Your task to perform on an android device: Play the new Bruno Mars video on YouTube Image 0: 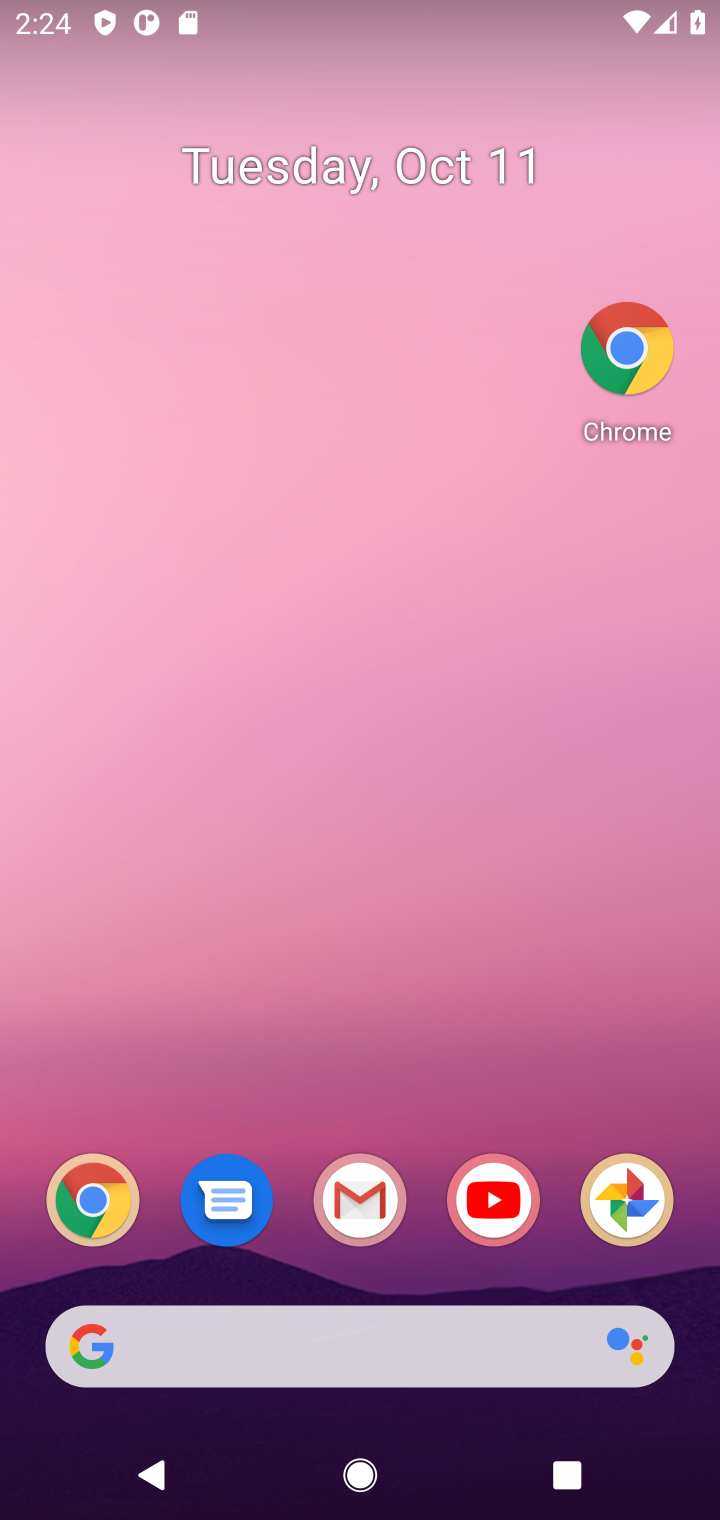
Step 0: drag from (439, 1102) to (403, 241)
Your task to perform on an android device: Play the new Bruno Mars video on YouTube Image 1: 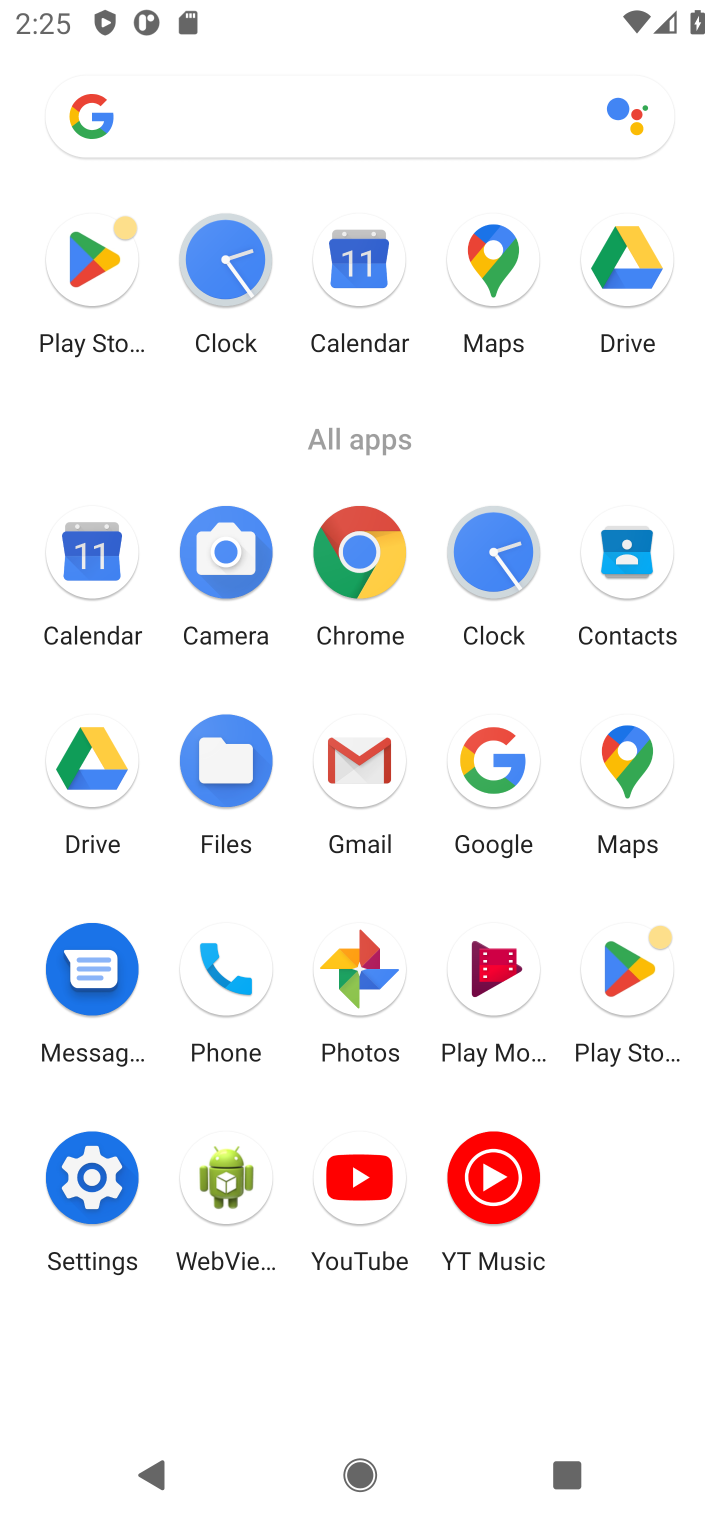
Step 1: click (358, 1213)
Your task to perform on an android device: Play the new Bruno Mars video on YouTube Image 2: 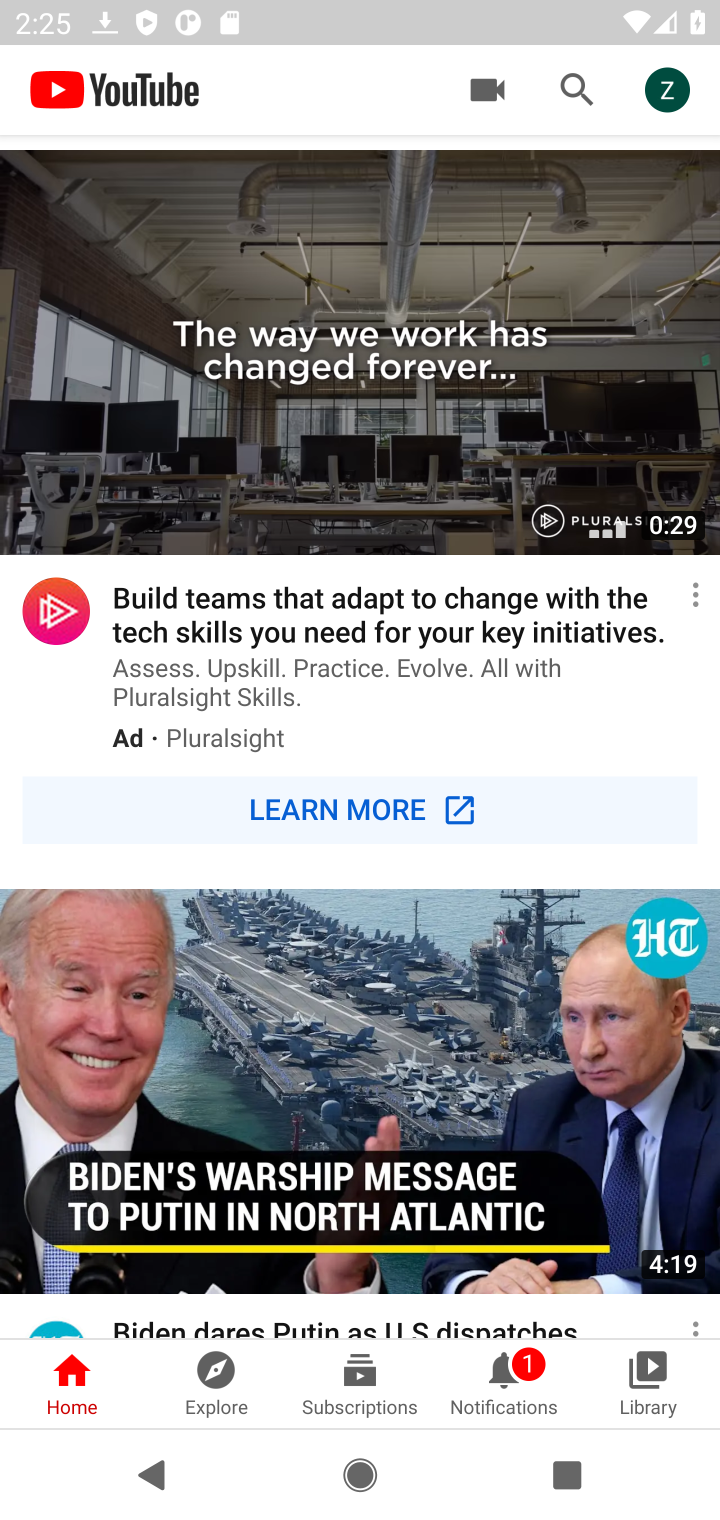
Step 2: click (554, 70)
Your task to perform on an android device: Play the new Bruno Mars video on YouTube Image 3: 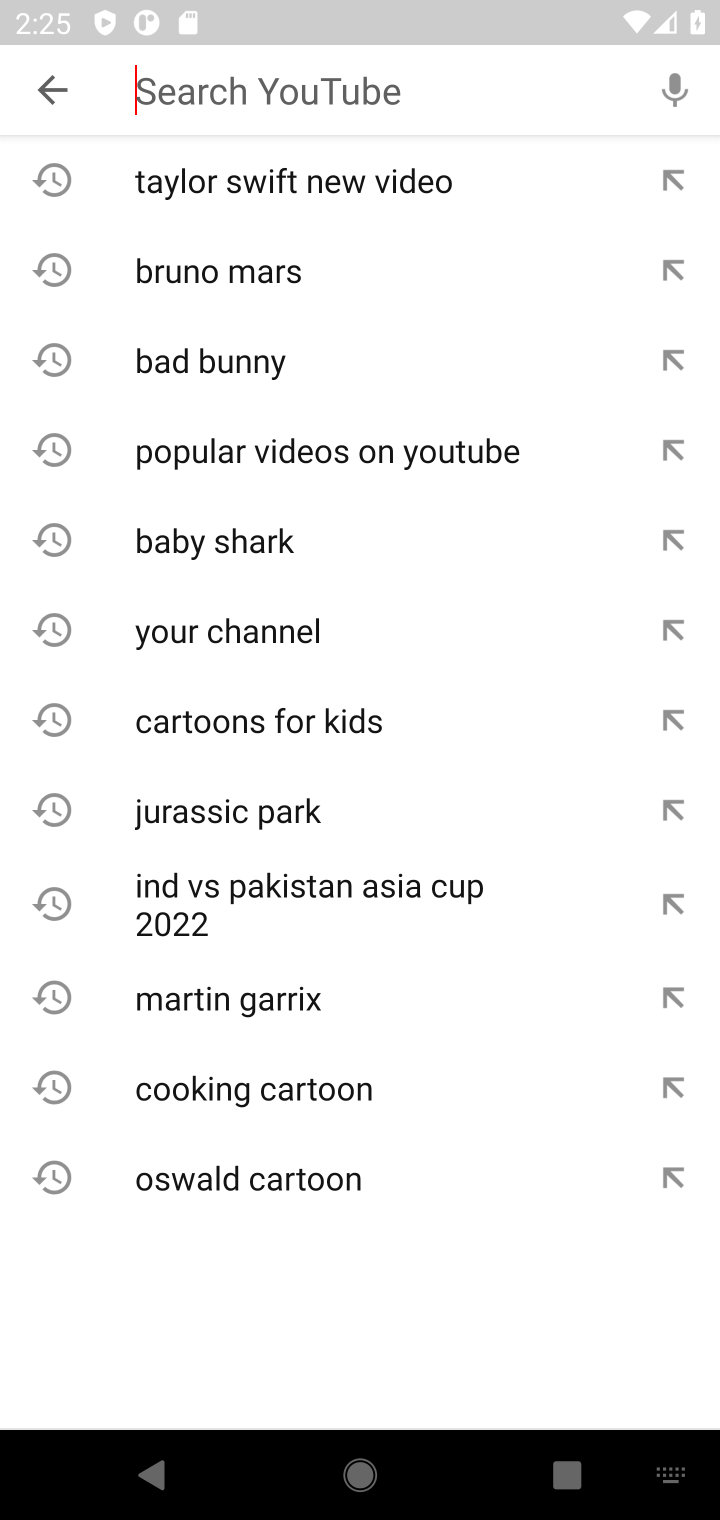
Step 3: type " Bruno Mars video"
Your task to perform on an android device: Play the new Bruno Mars video on YouTube Image 4: 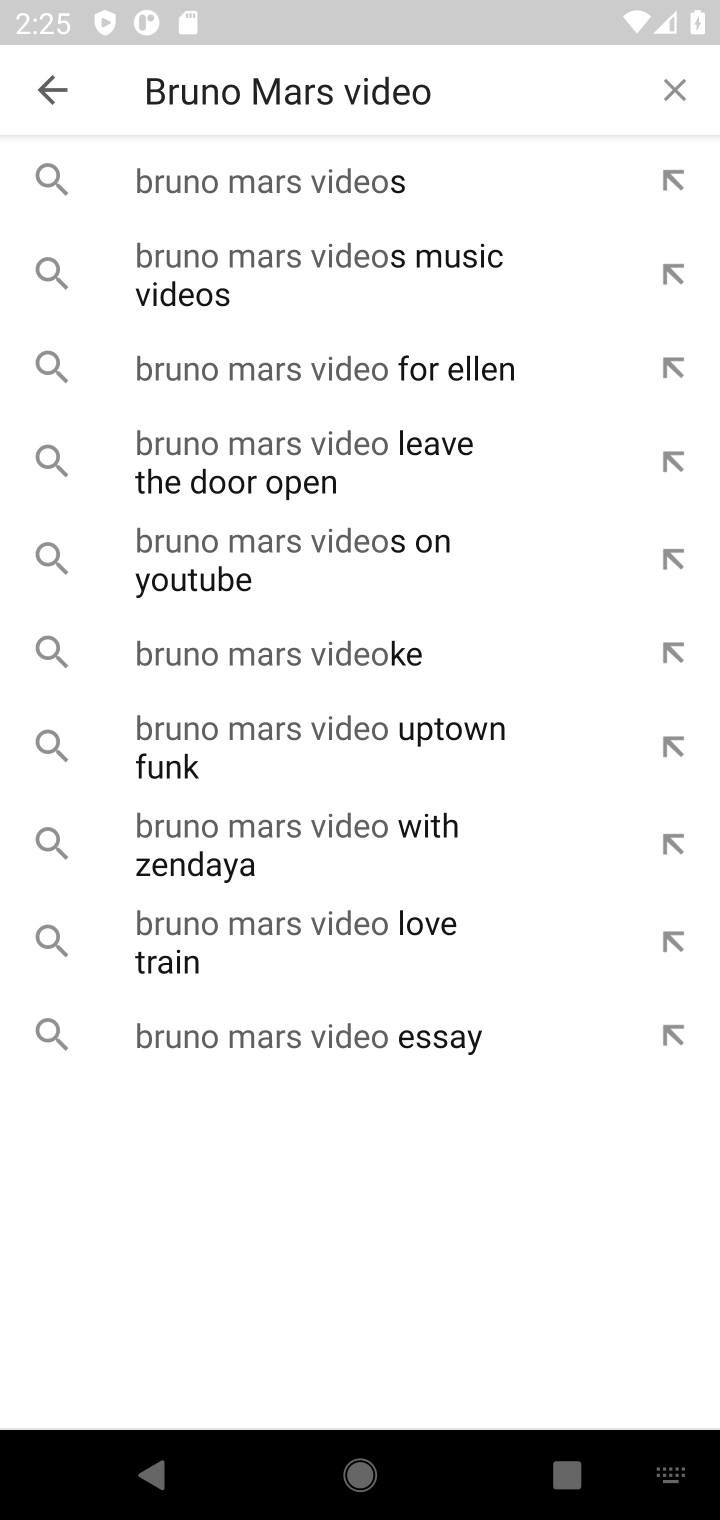
Step 4: type ""
Your task to perform on an android device: Play the new Bruno Mars video on YouTube Image 5: 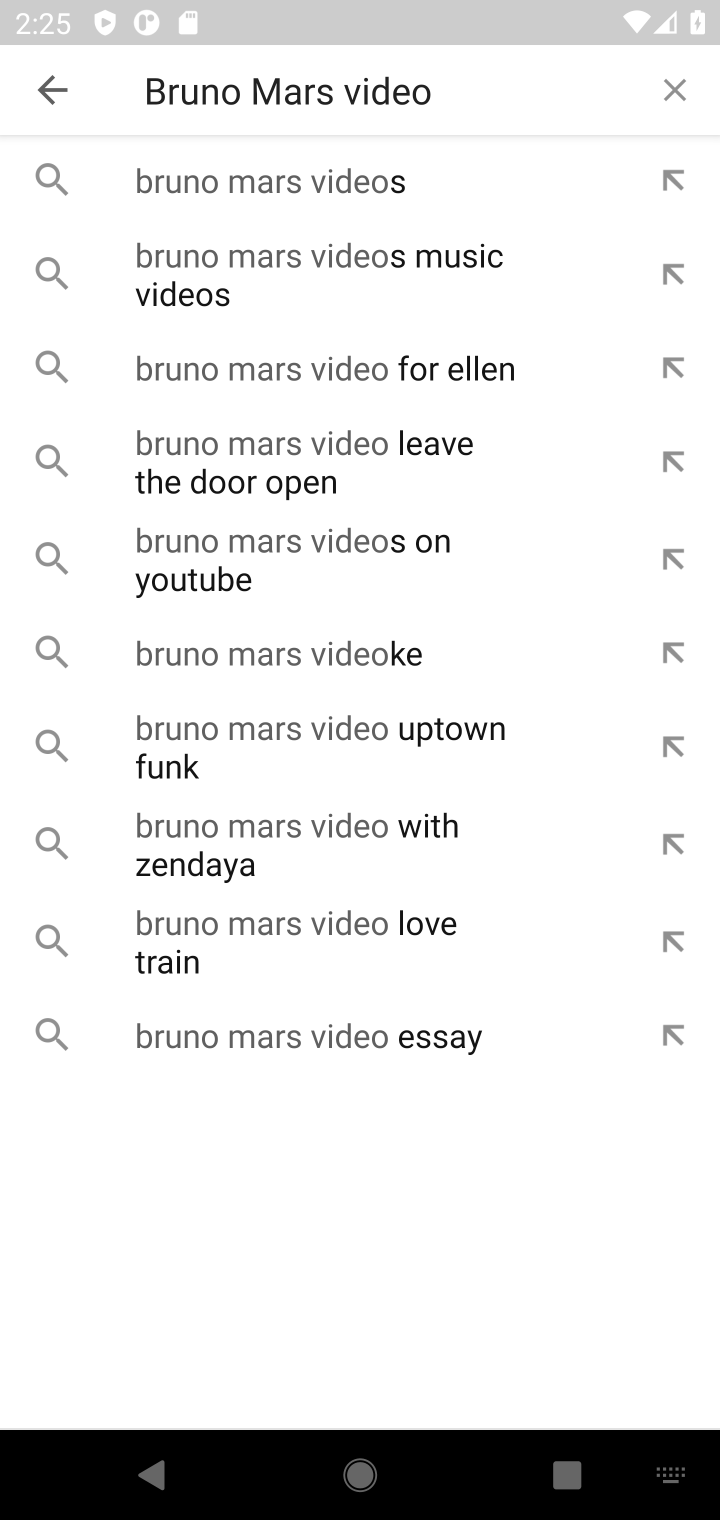
Step 5: click (343, 187)
Your task to perform on an android device: Play the new Bruno Mars video on YouTube Image 6: 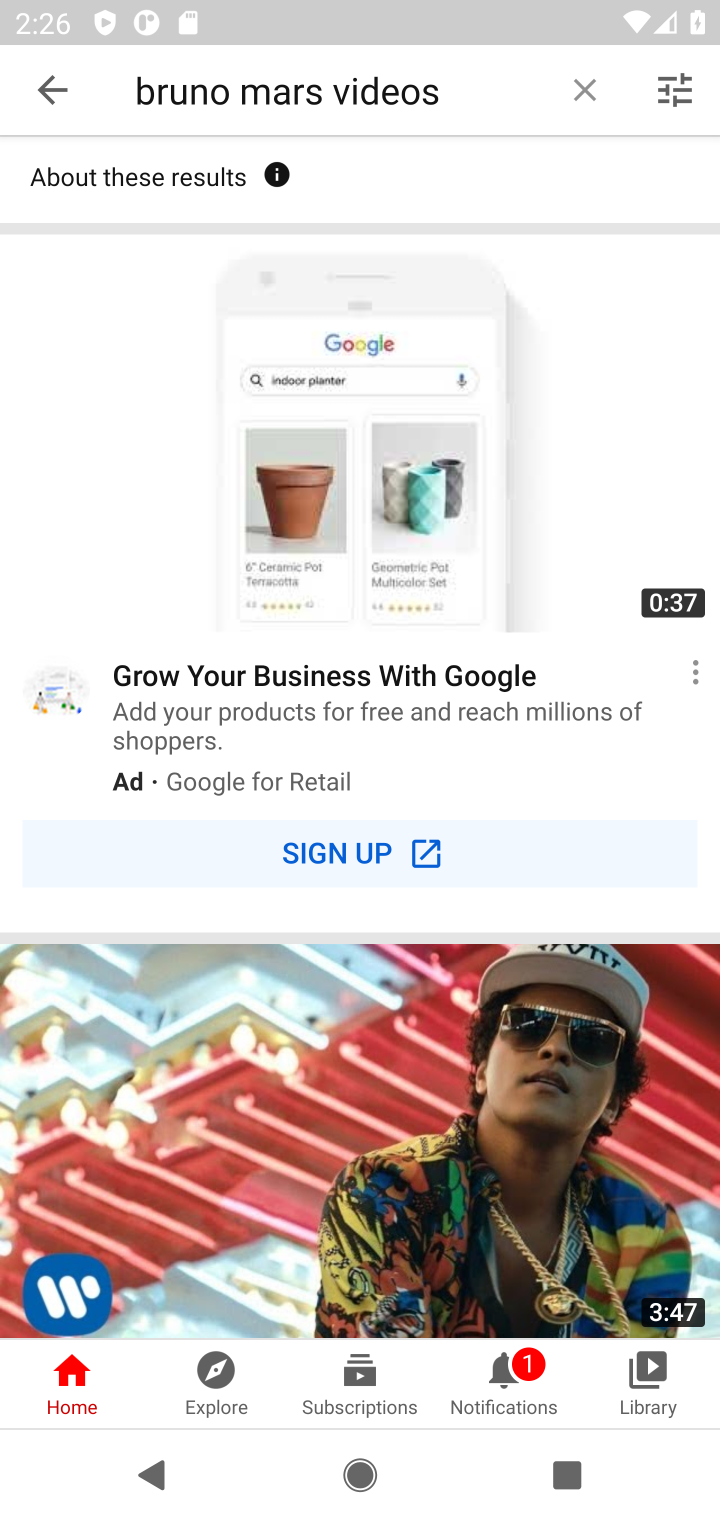
Step 6: drag from (403, 1028) to (460, 345)
Your task to perform on an android device: Play the new Bruno Mars video on YouTube Image 7: 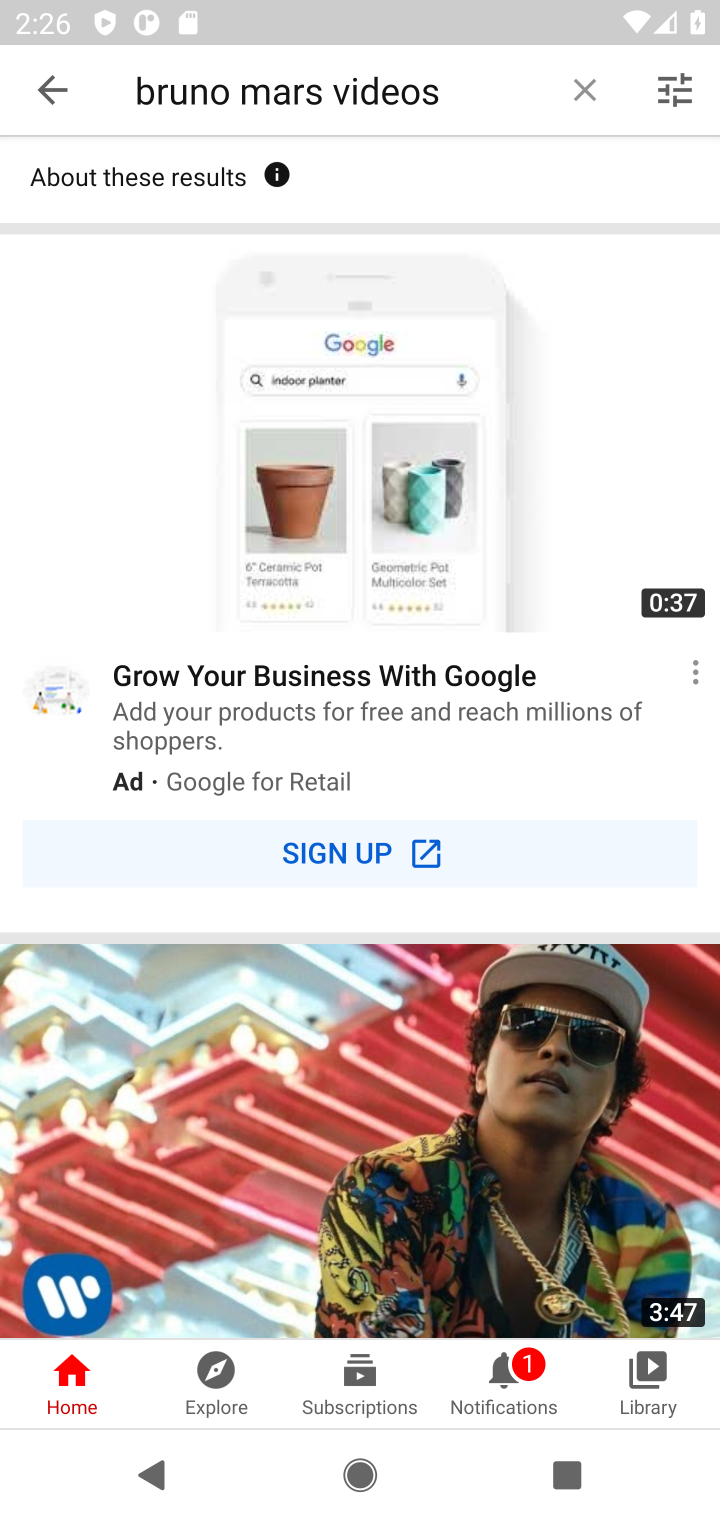
Step 7: drag from (519, 1005) to (536, 381)
Your task to perform on an android device: Play the new Bruno Mars video on YouTube Image 8: 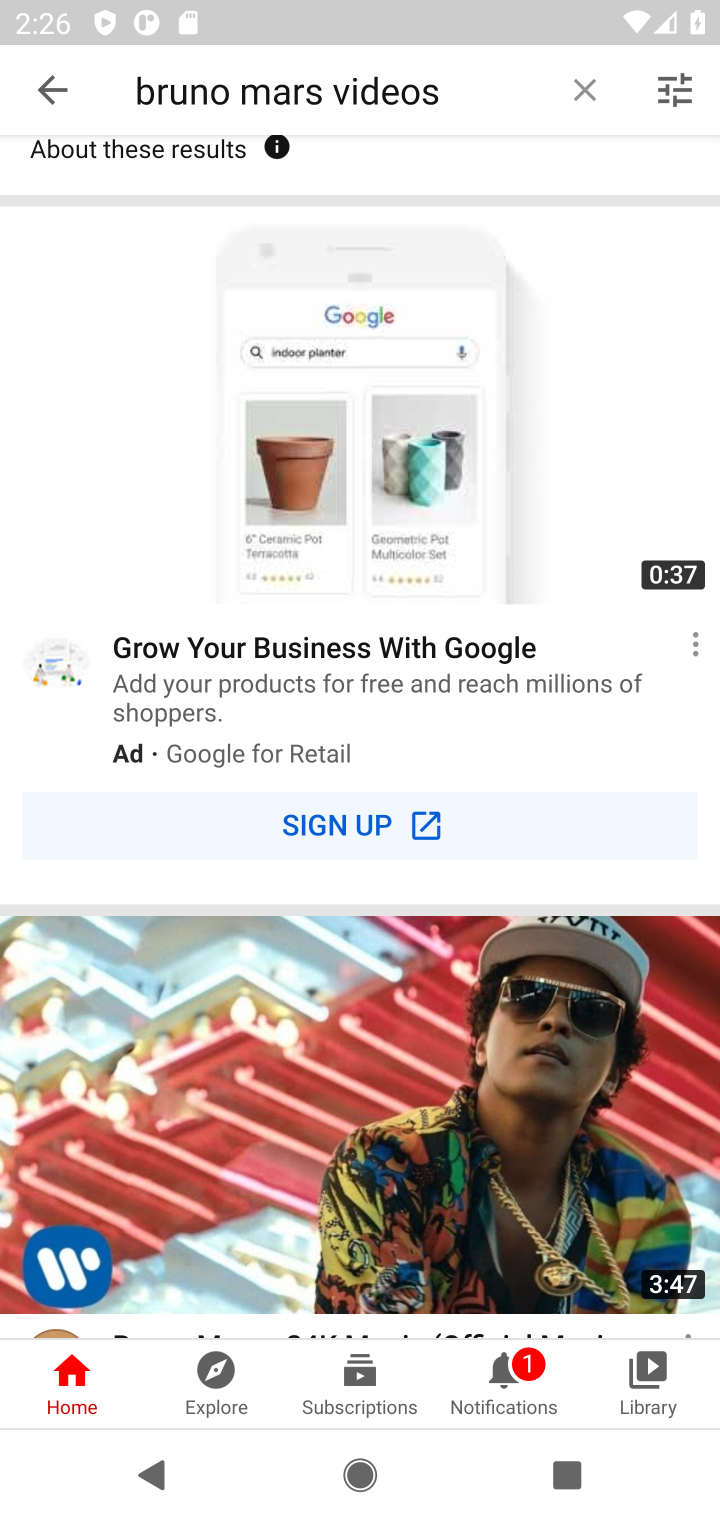
Step 8: drag from (504, 1054) to (473, 347)
Your task to perform on an android device: Play the new Bruno Mars video on YouTube Image 9: 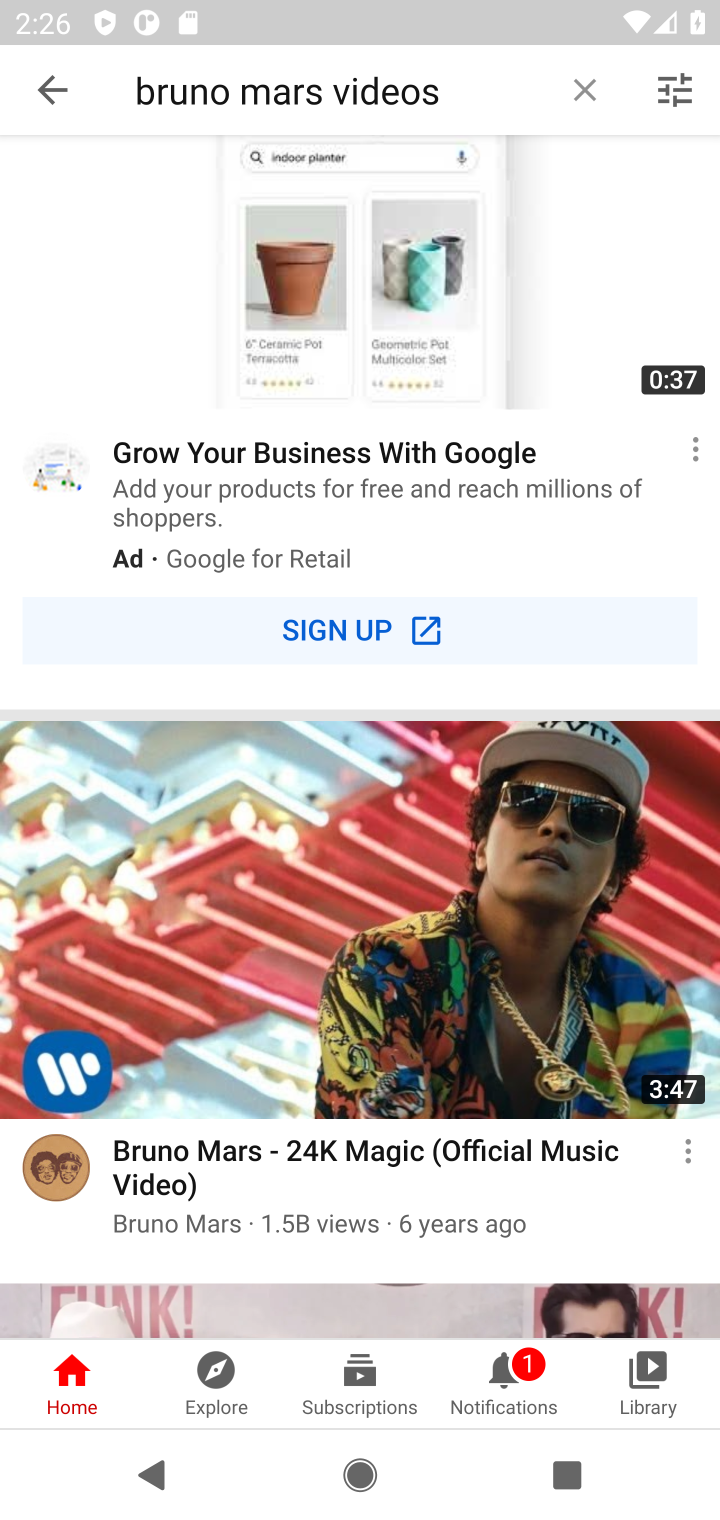
Step 9: click (207, 1168)
Your task to perform on an android device: Play the new Bruno Mars video on YouTube Image 10: 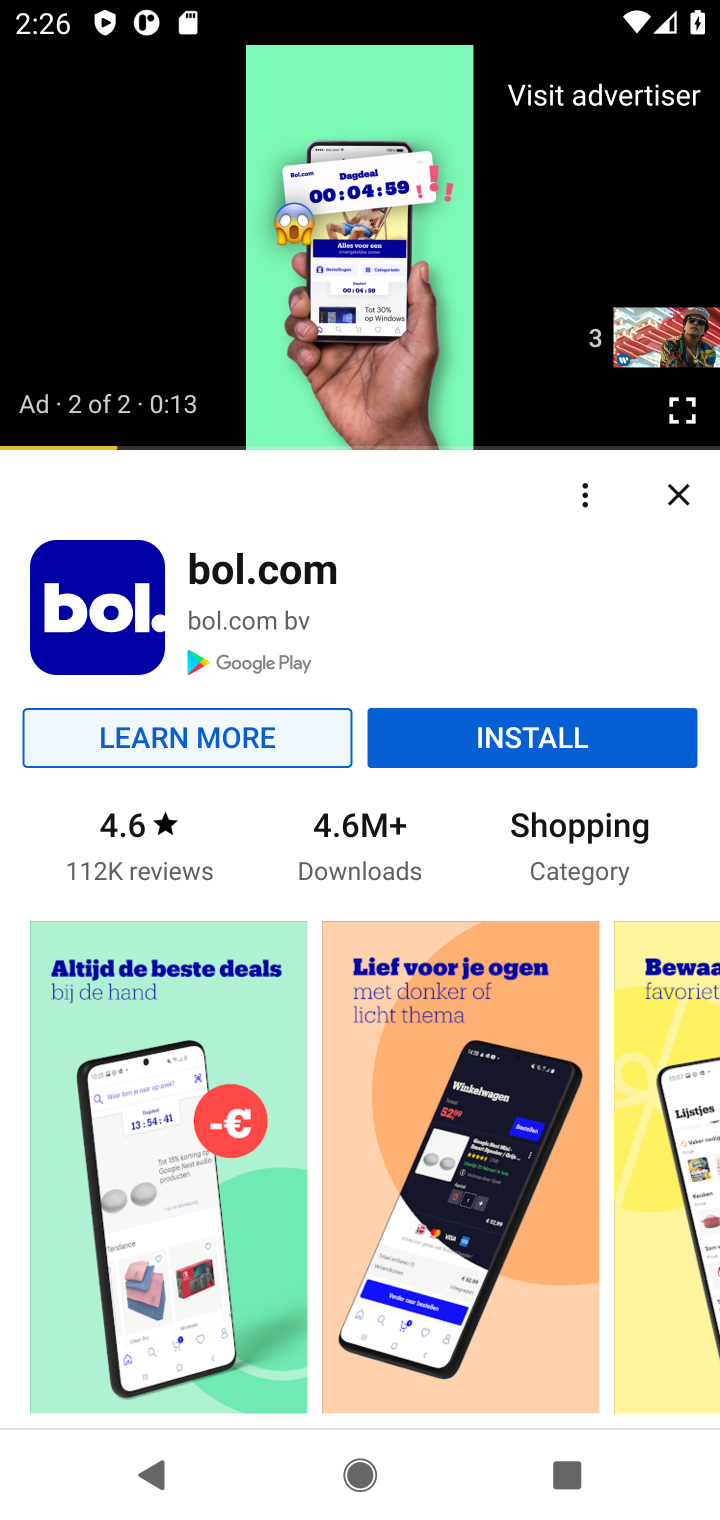
Step 10: click (698, 478)
Your task to perform on an android device: Play the new Bruno Mars video on YouTube Image 11: 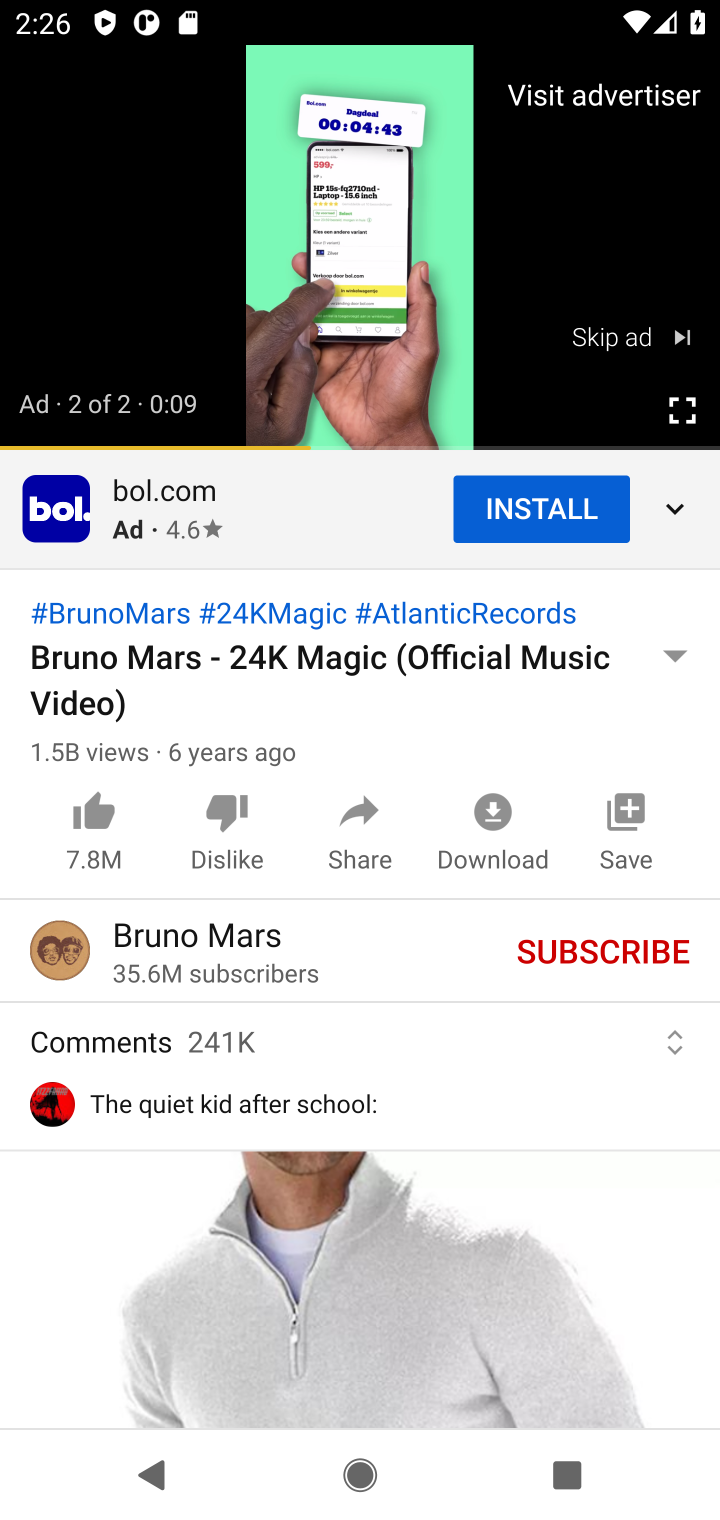
Step 11: click (146, 922)
Your task to perform on an android device: Play the new Bruno Mars video on YouTube Image 12: 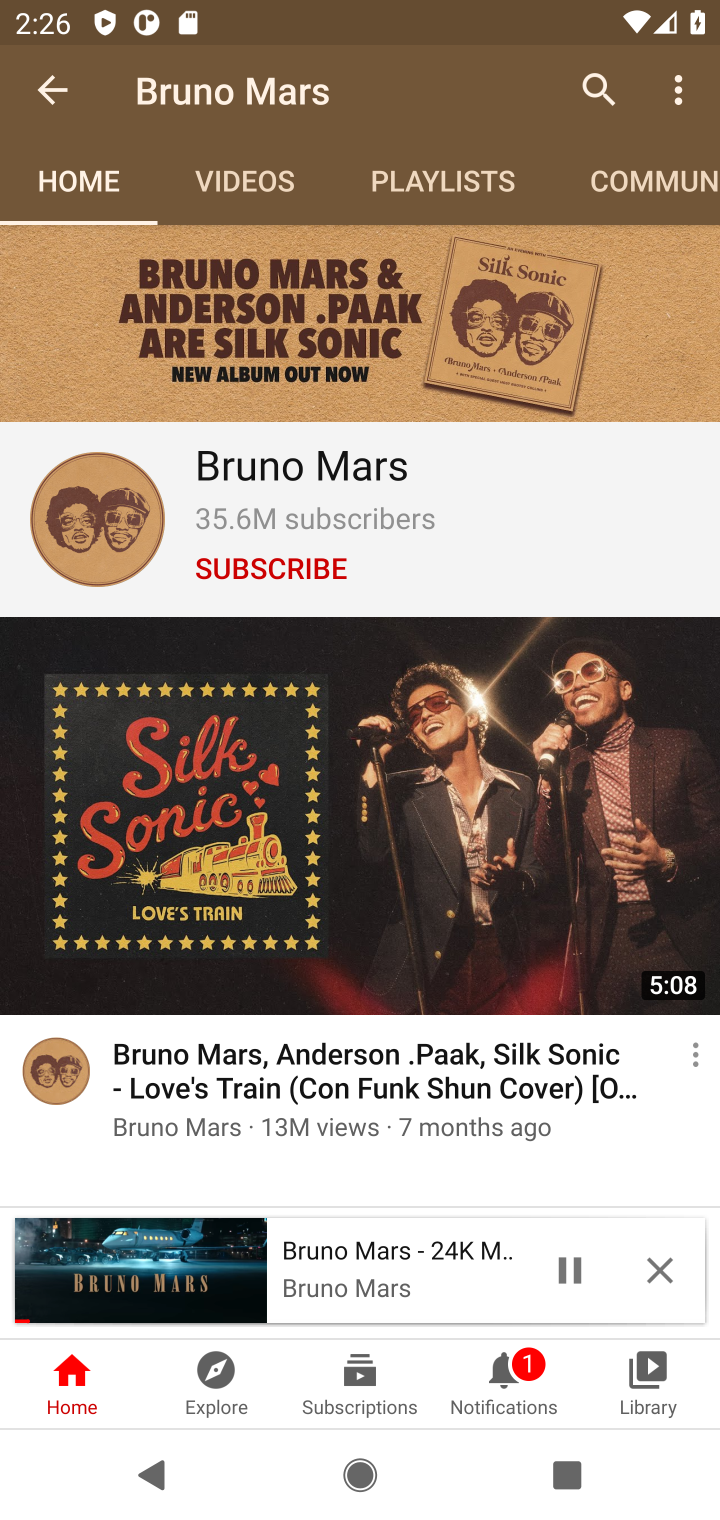
Step 12: click (668, 1258)
Your task to perform on an android device: Play the new Bruno Mars video on YouTube Image 13: 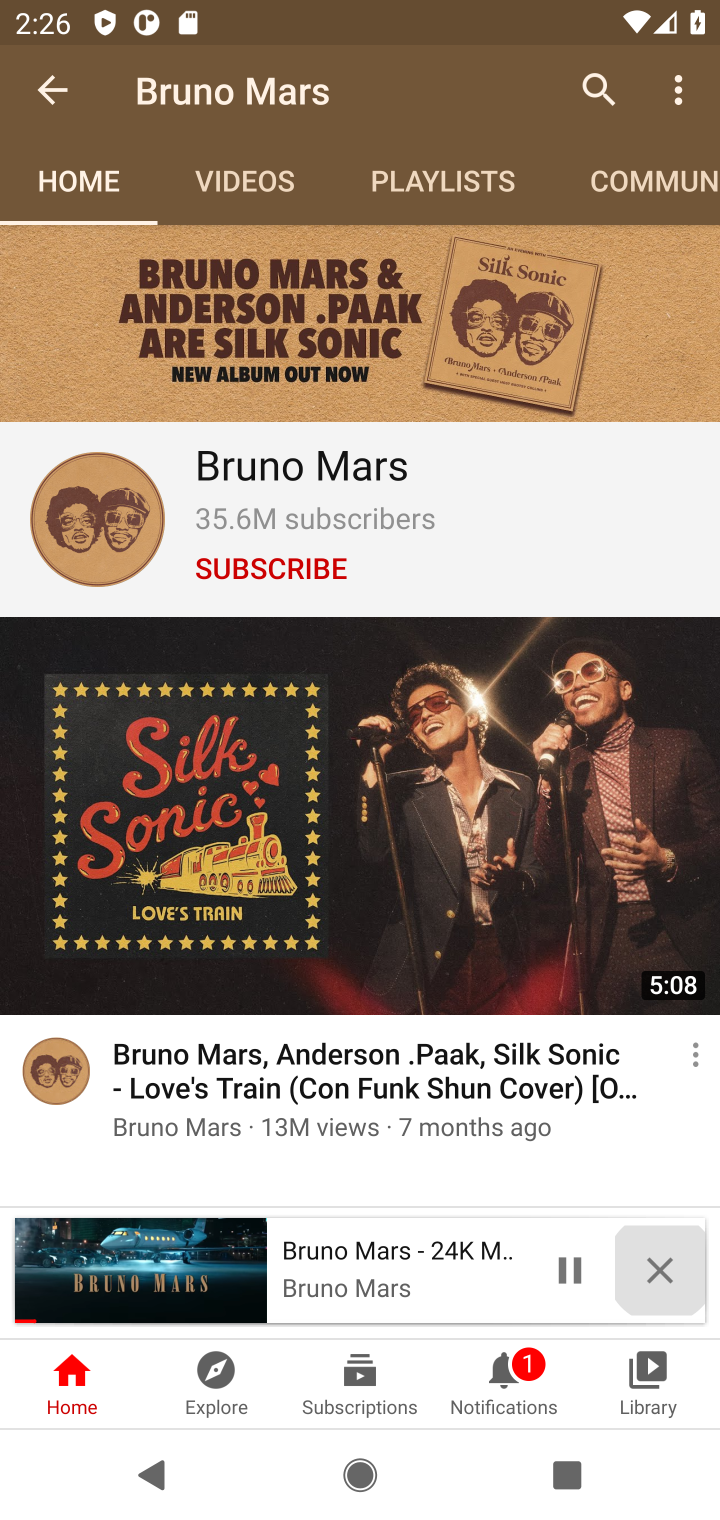
Step 13: click (220, 152)
Your task to perform on an android device: Play the new Bruno Mars video on YouTube Image 14: 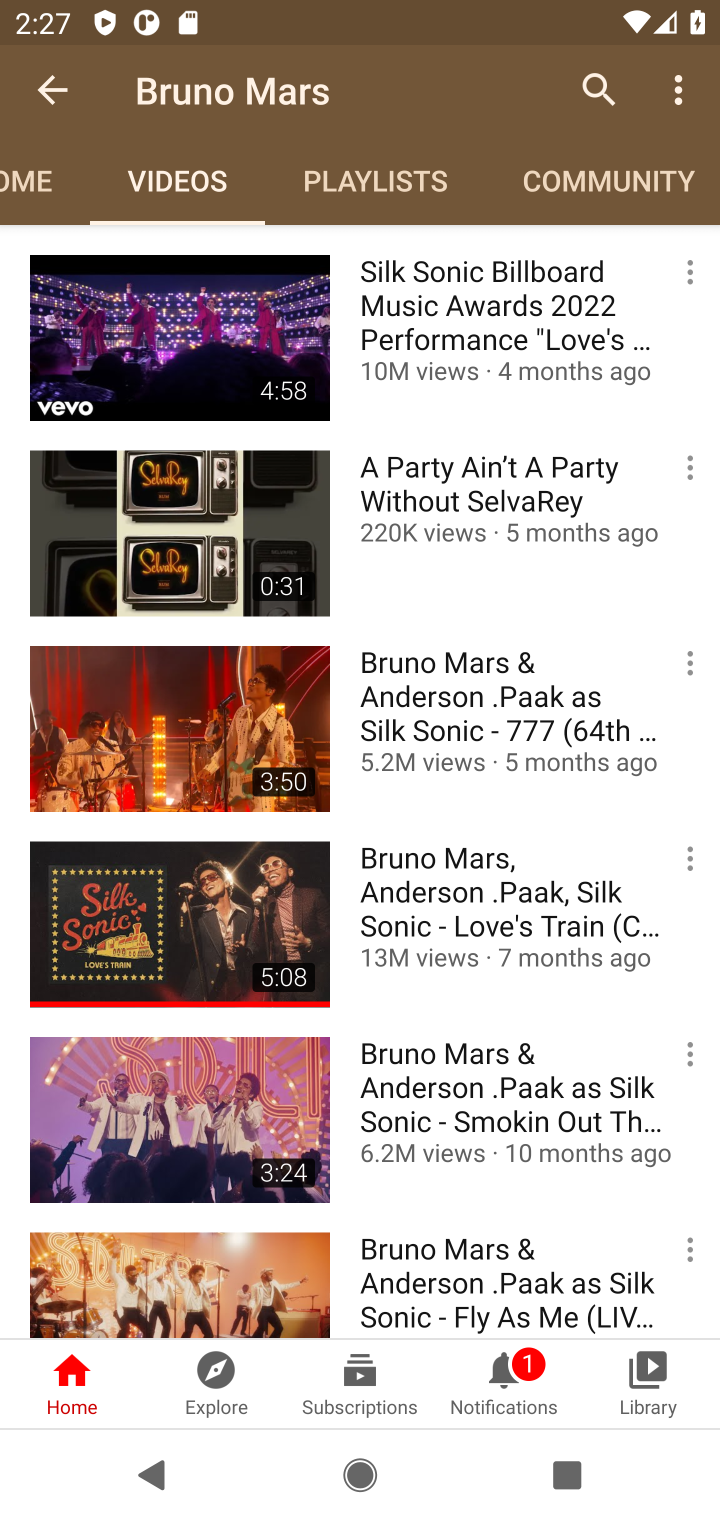
Step 14: click (587, 278)
Your task to perform on an android device: Play the new Bruno Mars video on YouTube Image 15: 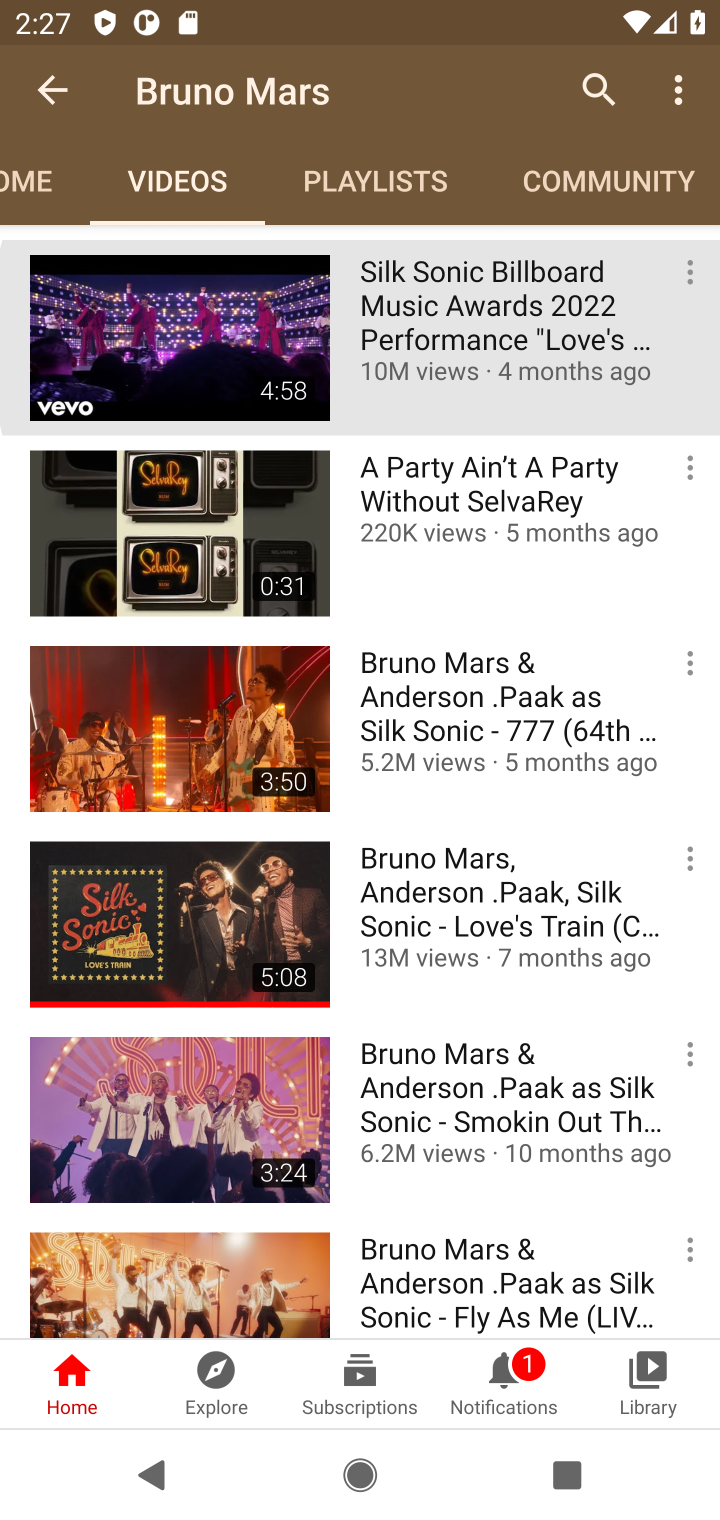
Step 15: drag from (585, 409) to (585, 319)
Your task to perform on an android device: Play the new Bruno Mars video on YouTube Image 16: 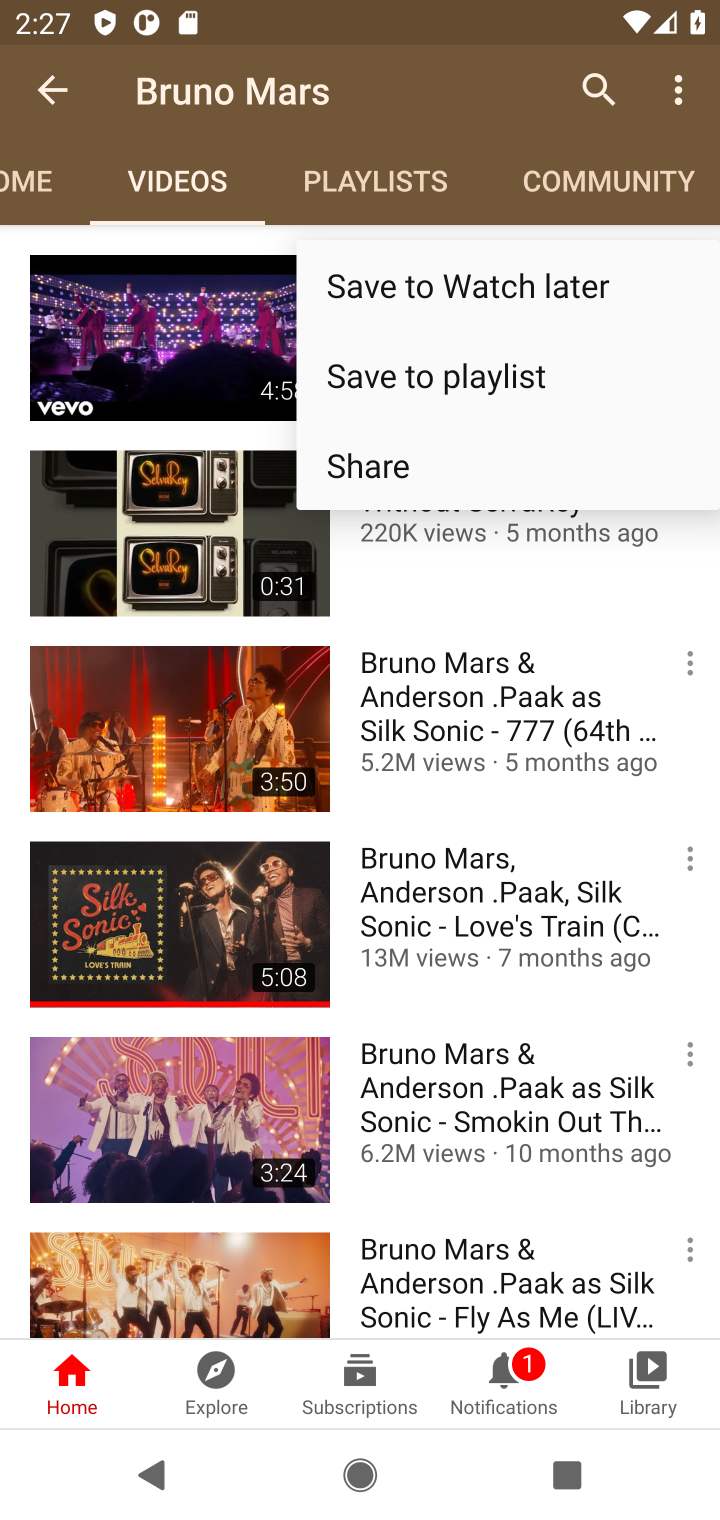
Step 16: drag from (508, 775) to (529, 554)
Your task to perform on an android device: Play the new Bruno Mars video on YouTube Image 17: 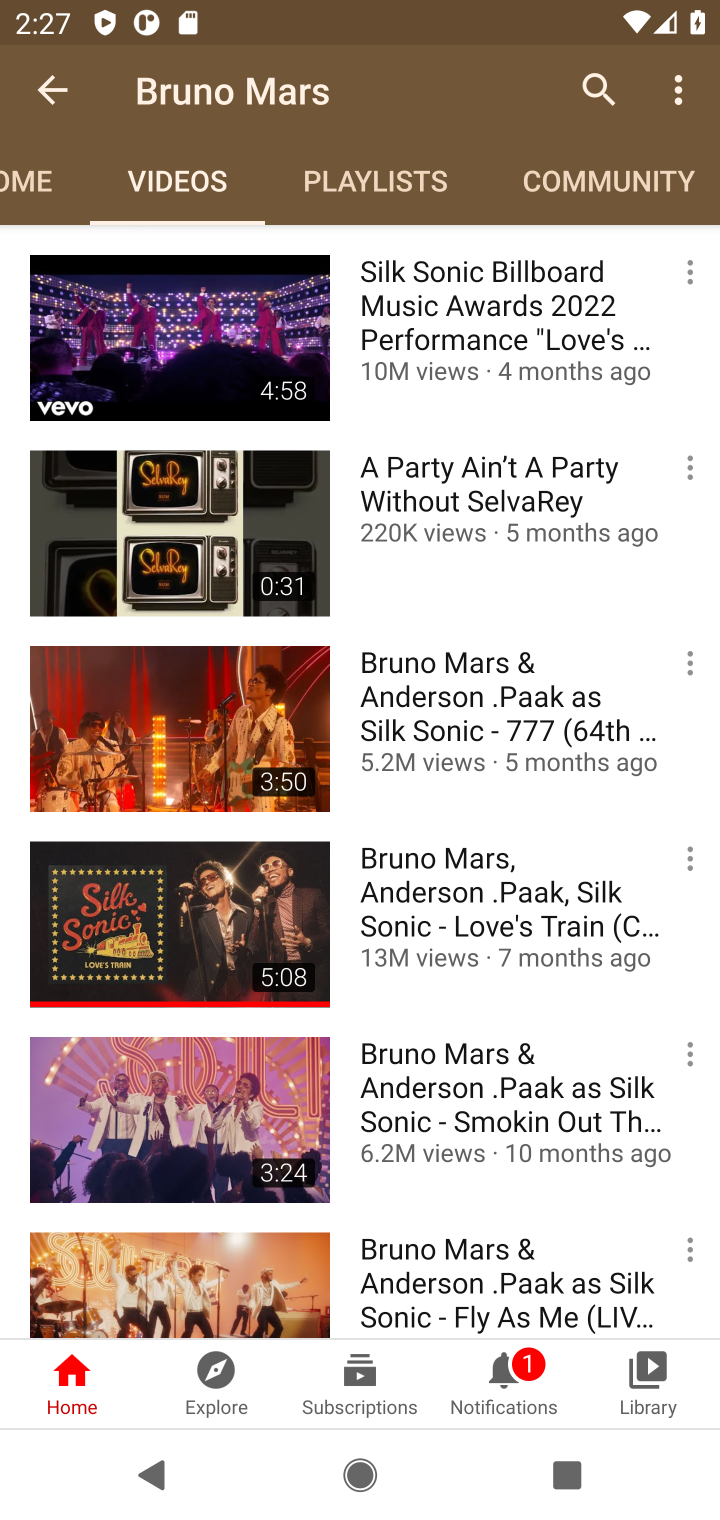
Step 17: click (490, 428)
Your task to perform on an android device: Play the new Bruno Mars video on YouTube Image 18: 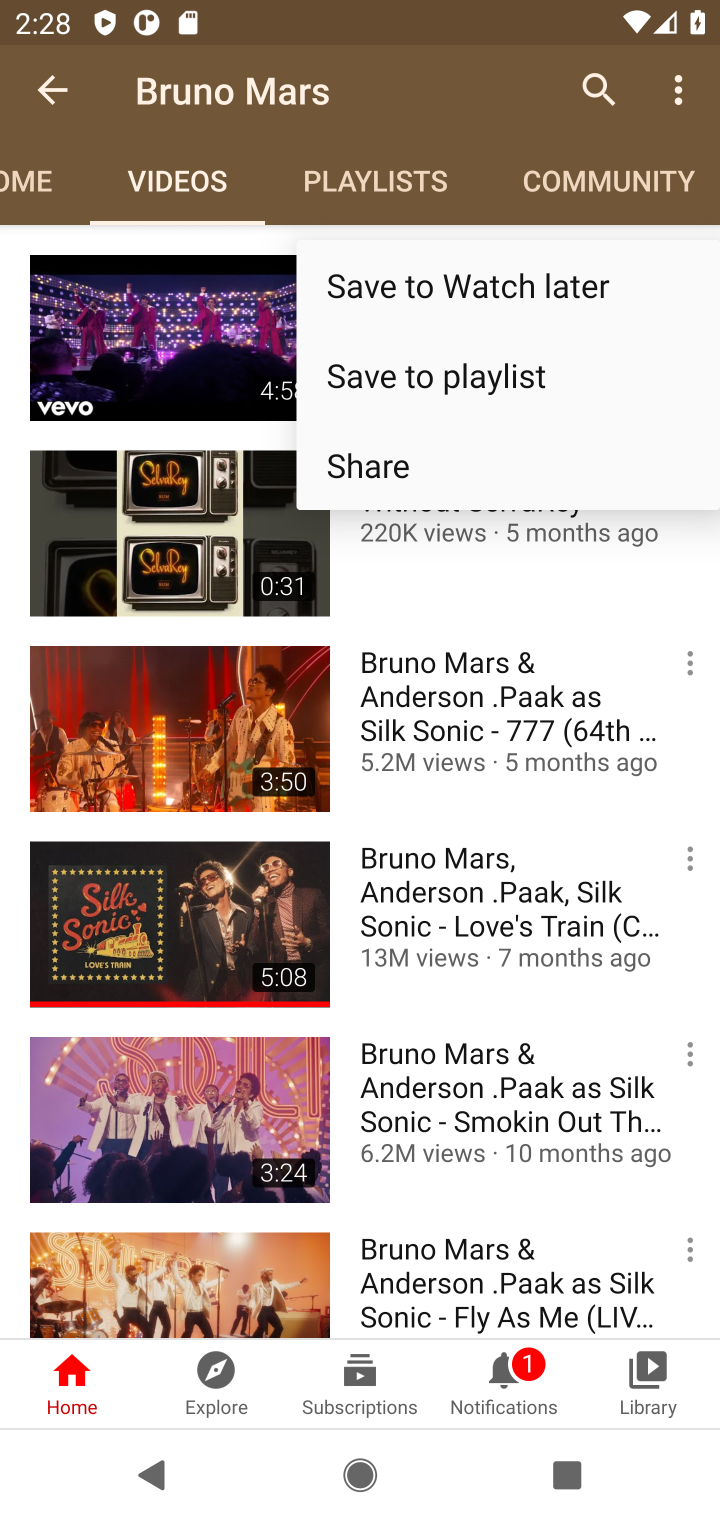
Step 18: task complete